Your task to perform on an android device: Open network settings Image 0: 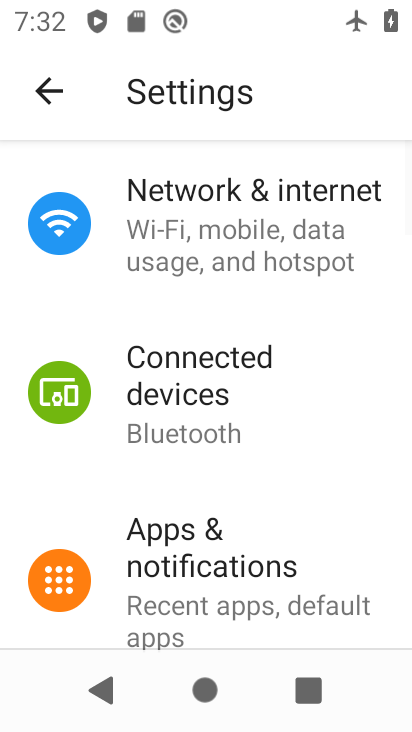
Step 0: press home button
Your task to perform on an android device: Open network settings Image 1: 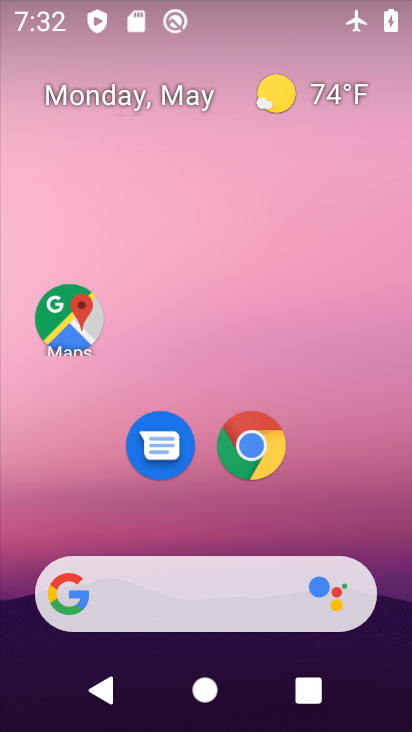
Step 1: drag from (177, 609) to (322, 67)
Your task to perform on an android device: Open network settings Image 2: 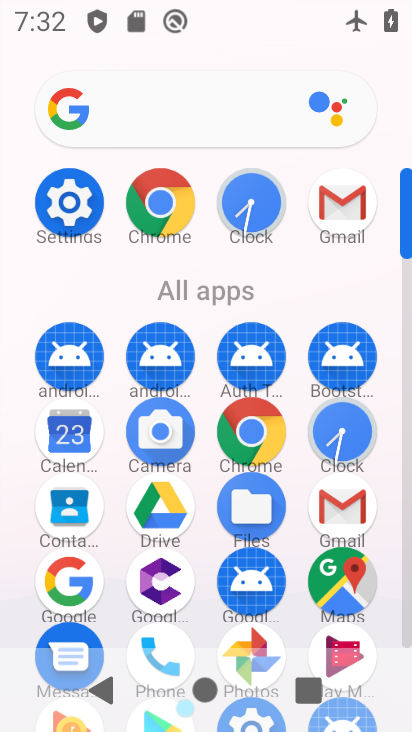
Step 2: click (61, 210)
Your task to perform on an android device: Open network settings Image 3: 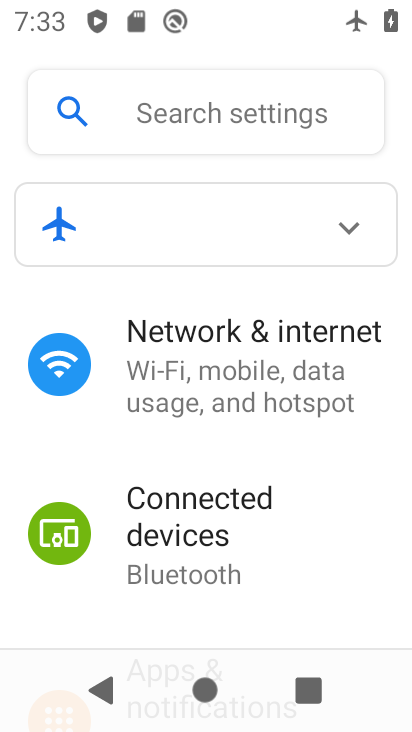
Step 3: click (192, 357)
Your task to perform on an android device: Open network settings Image 4: 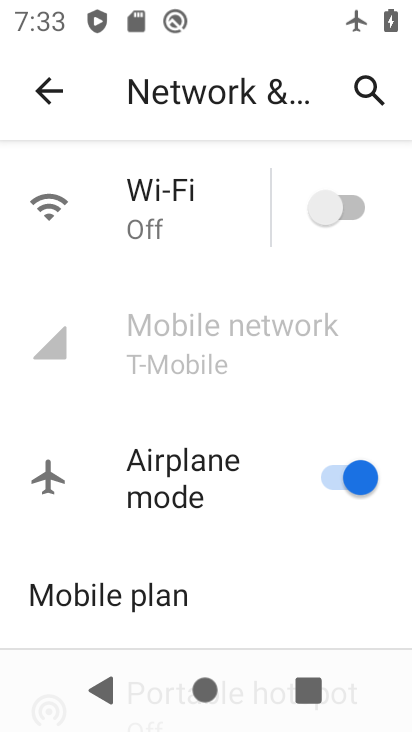
Step 4: task complete